Your task to perform on an android device: View the shopping cart on newegg. Image 0: 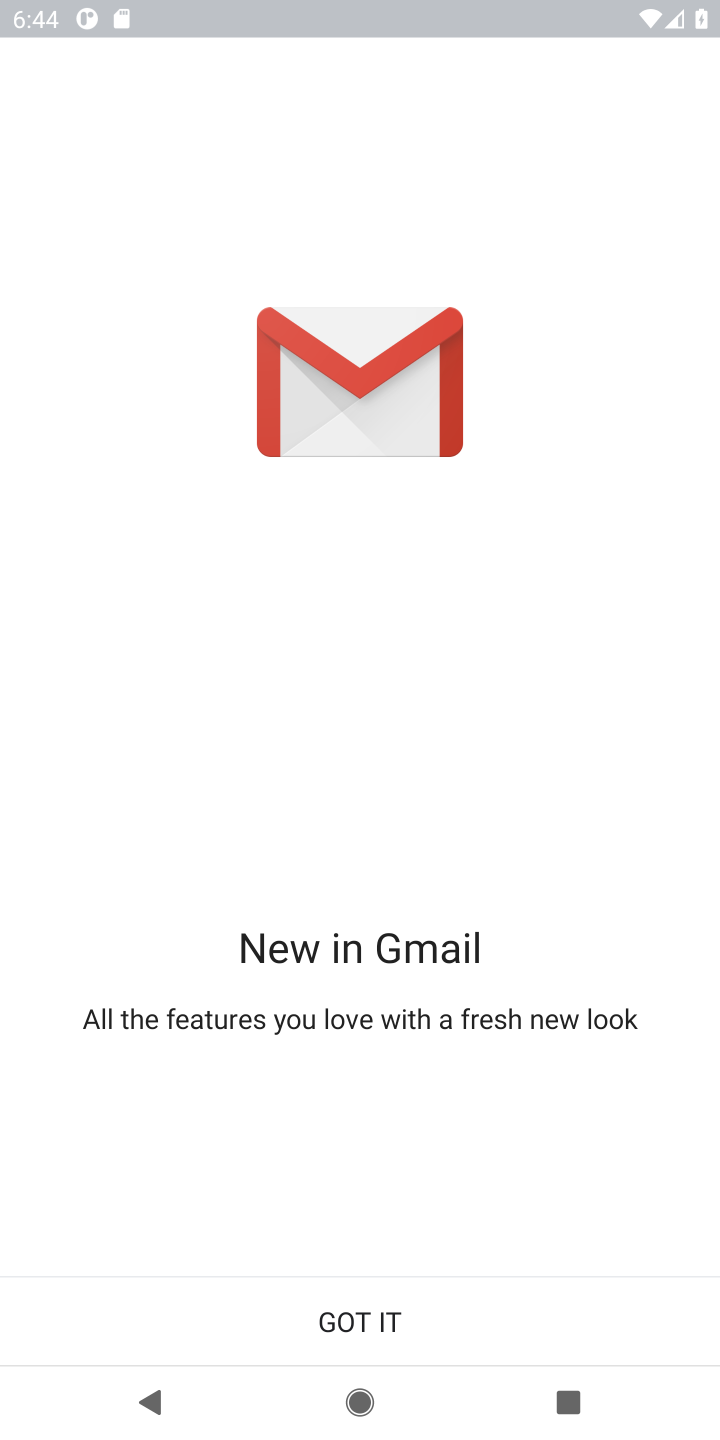
Step 0: press home button
Your task to perform on an android device: View the shopping cart on newegg. Image 1: 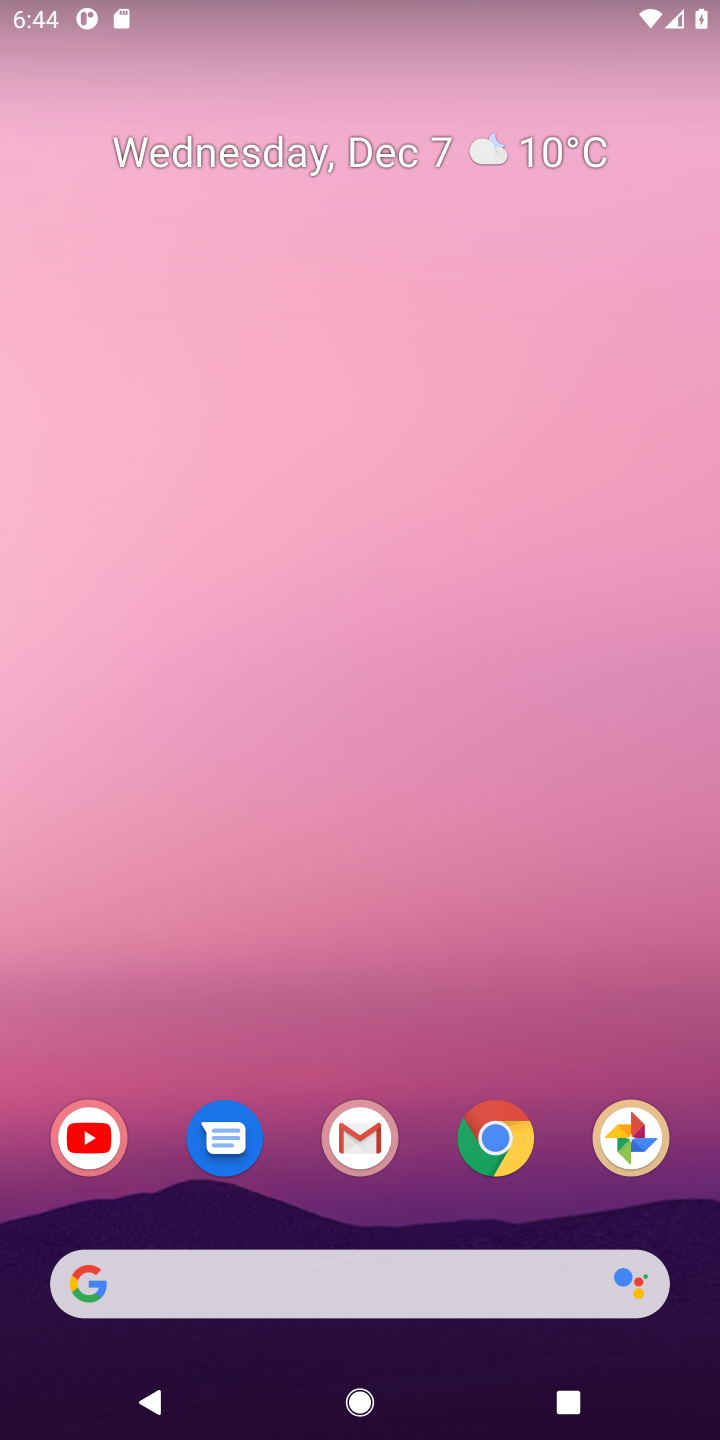
Step 1: click (138, 1282)
Your task to perform on an android device: View the shopping cart on newegg. Image 2: 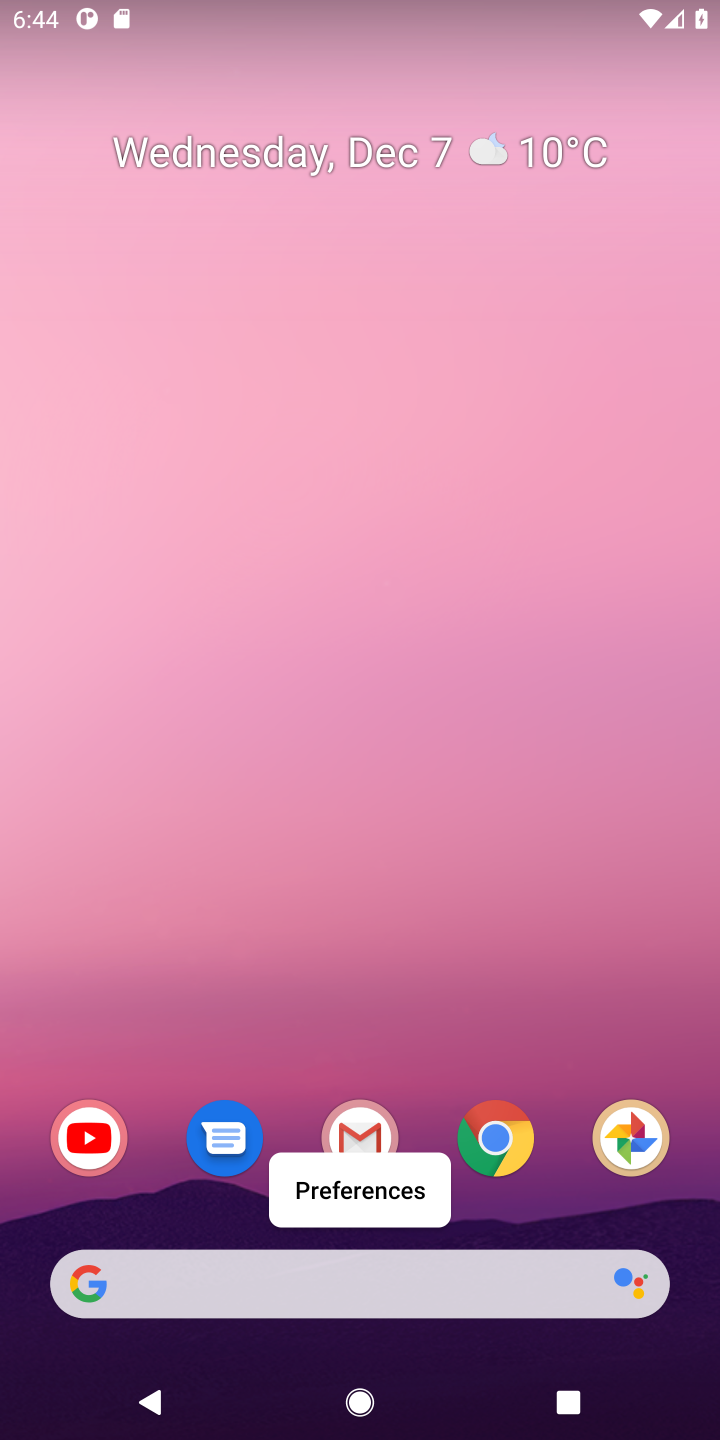
Step 2: click (138, 1282)
Your task to perform on an android device: View the shopping cart on newegg. Image 3: 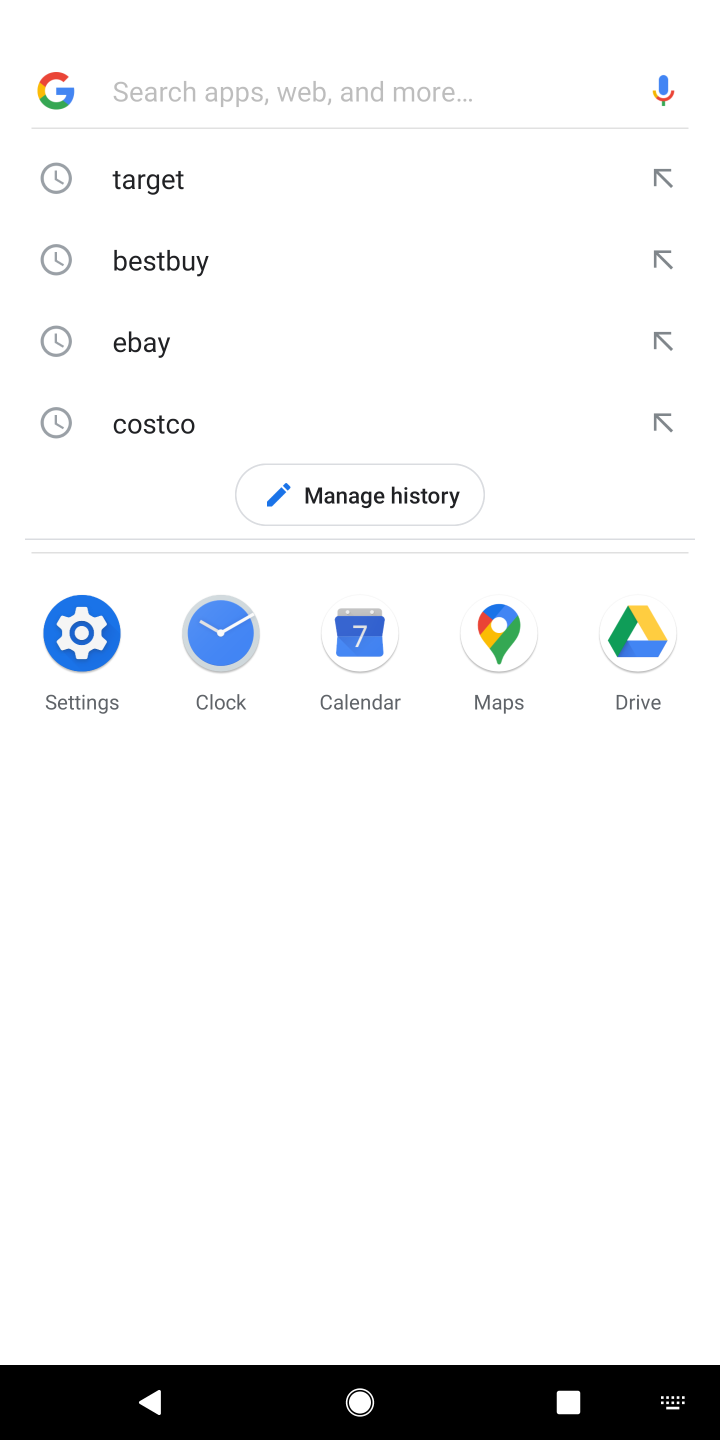
Step 3: type "newegg"
Your task to perform on an android device: View the shopping cart on newegg. Image 4: 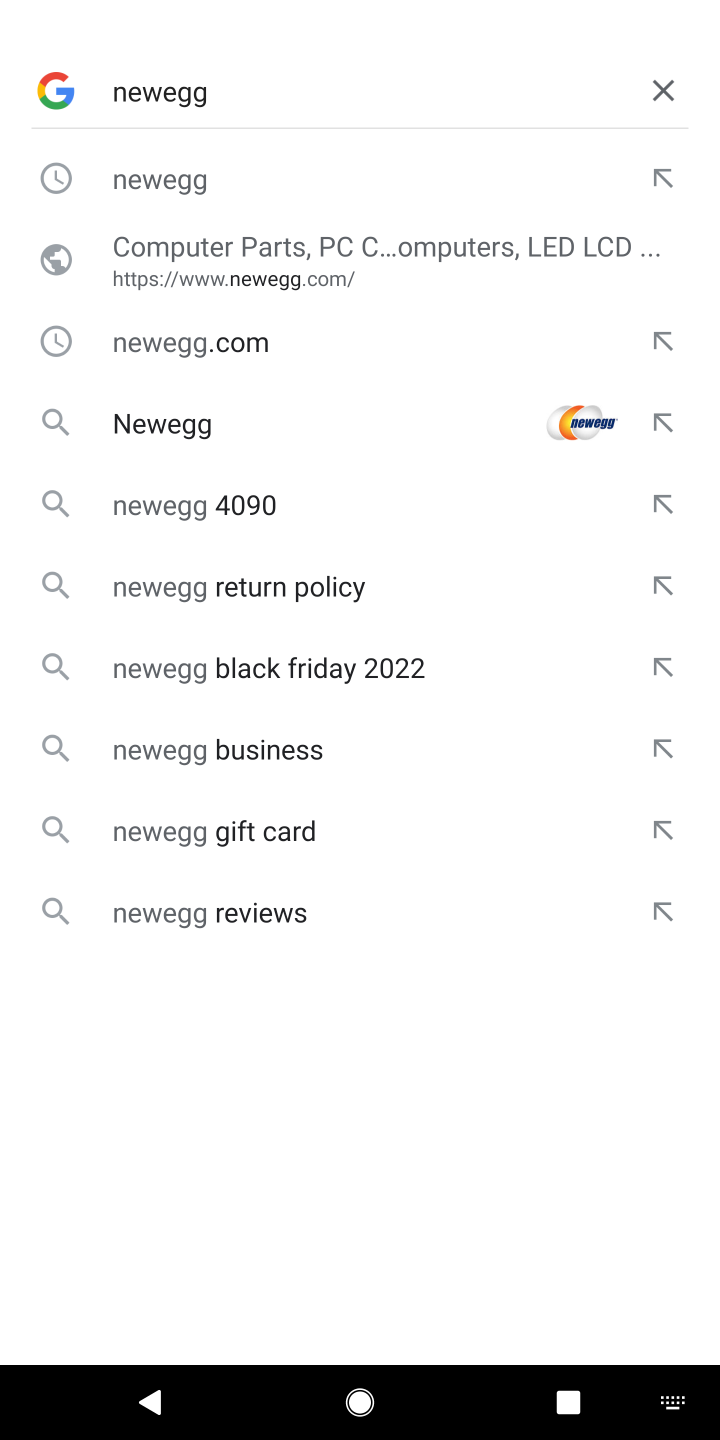
Step 4: press enter
Your task to perform on an android device: View the shopping cart on newegg. Image 5: 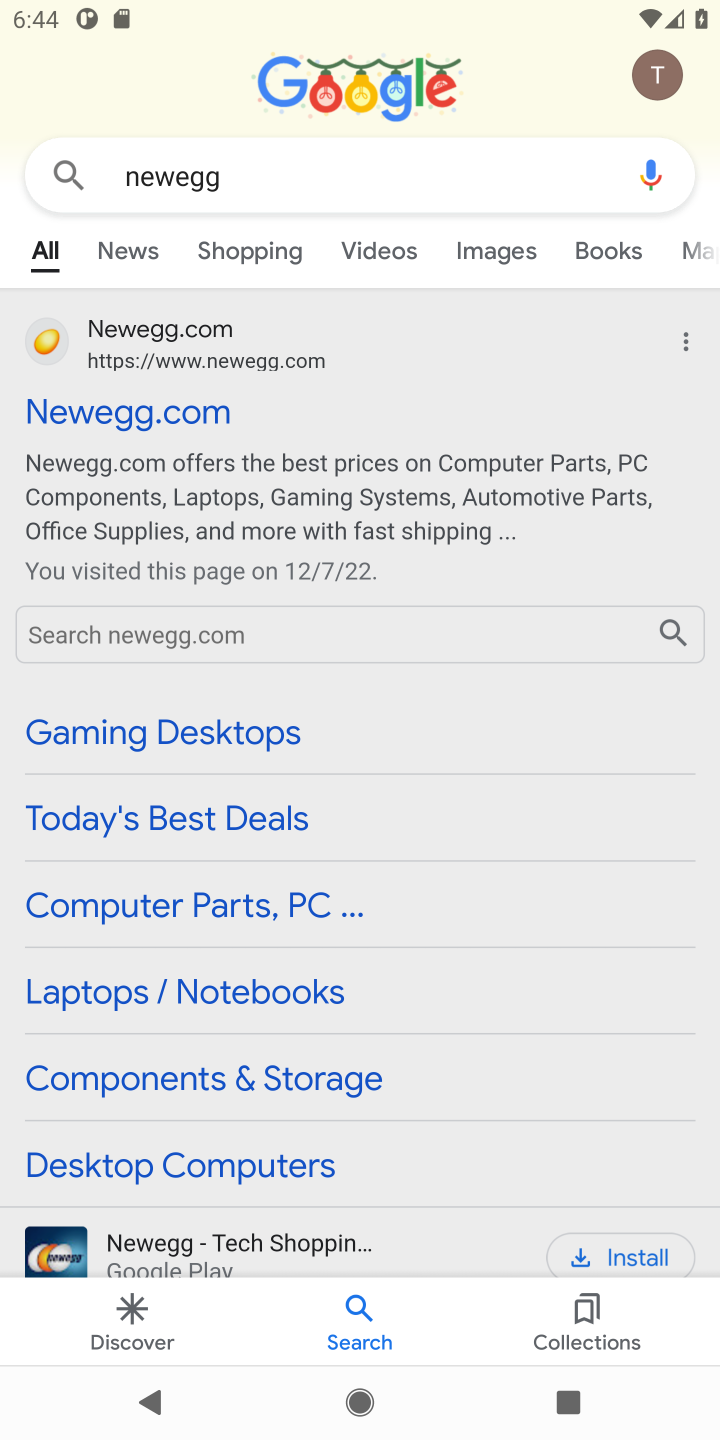
Step 5: click (149, 410)
Your task to perform on an android device: View the shopping cart on newegg. Image 6: 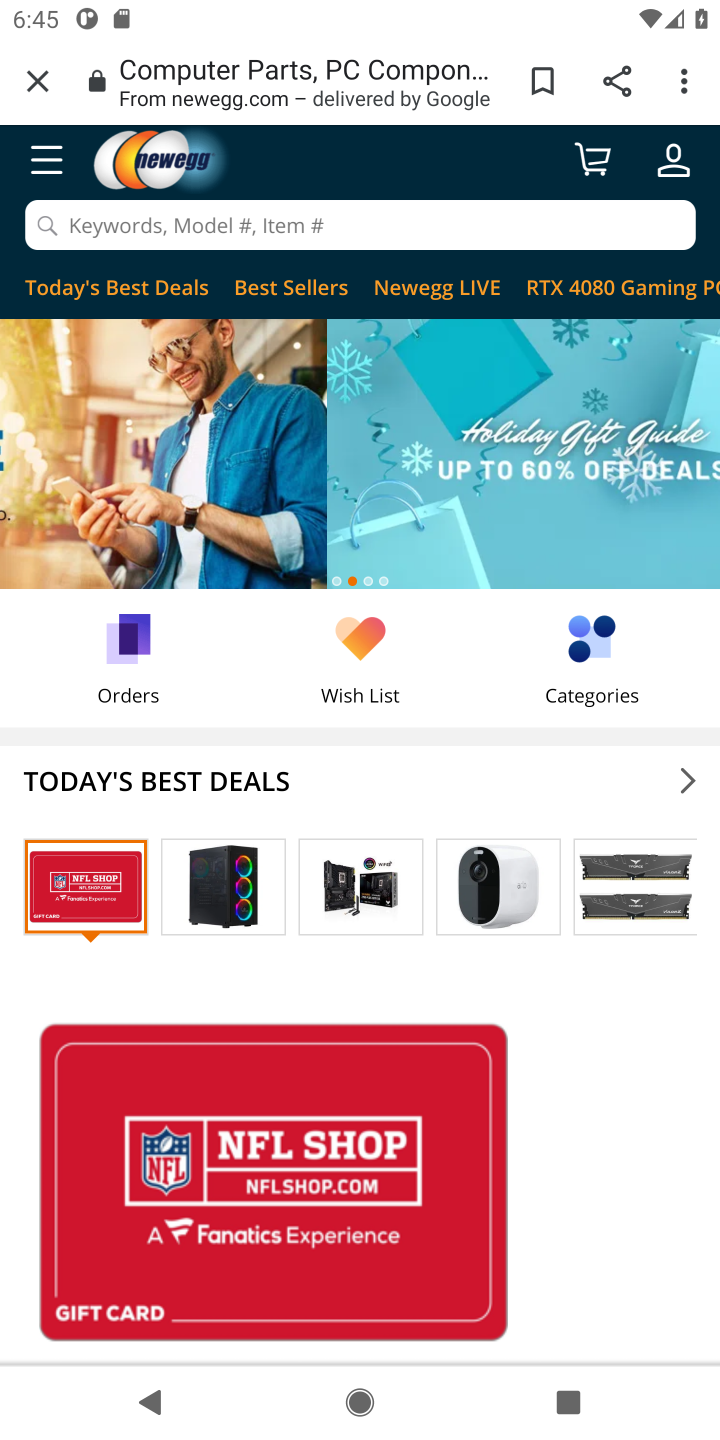
Step 6: click (589, 155)
Your task to perform on an android device: View the shopping cart on newegg. Image 7: 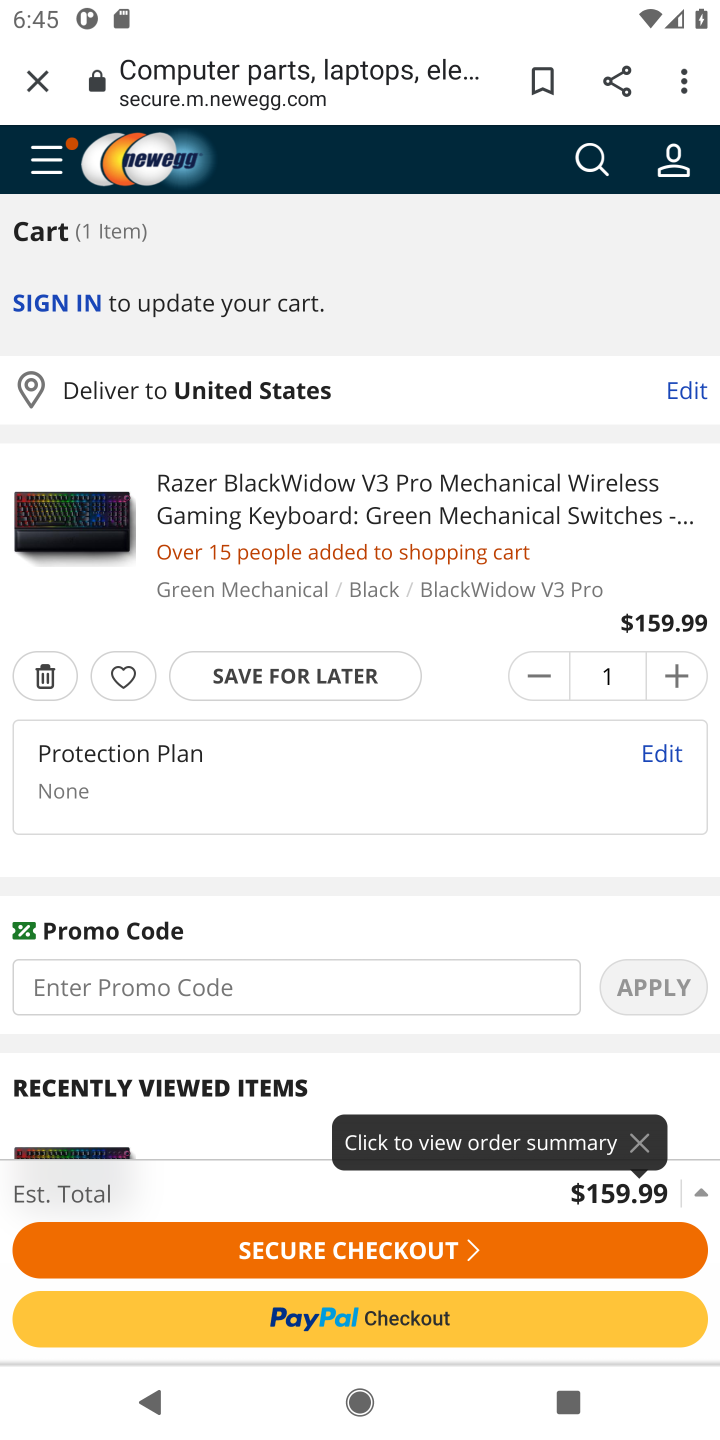
Step 7: task complete